Your task to perform on an android device: Search for vegetarian restaurants on Maps Image 0: 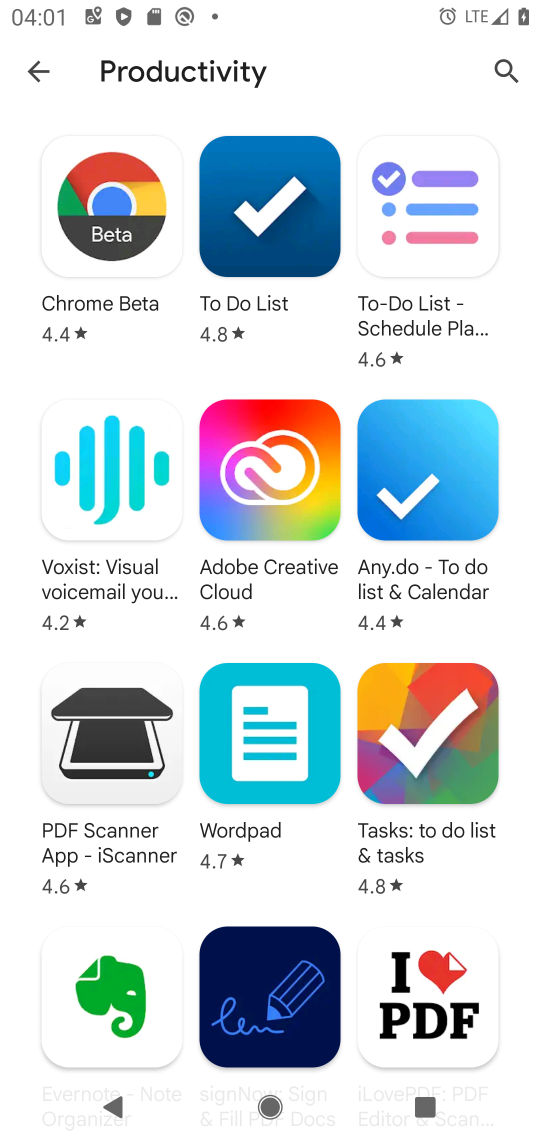
Step 0: press back button
Your task to perform on an android device: Search for vegetarian restaurants on Maps Image 1: 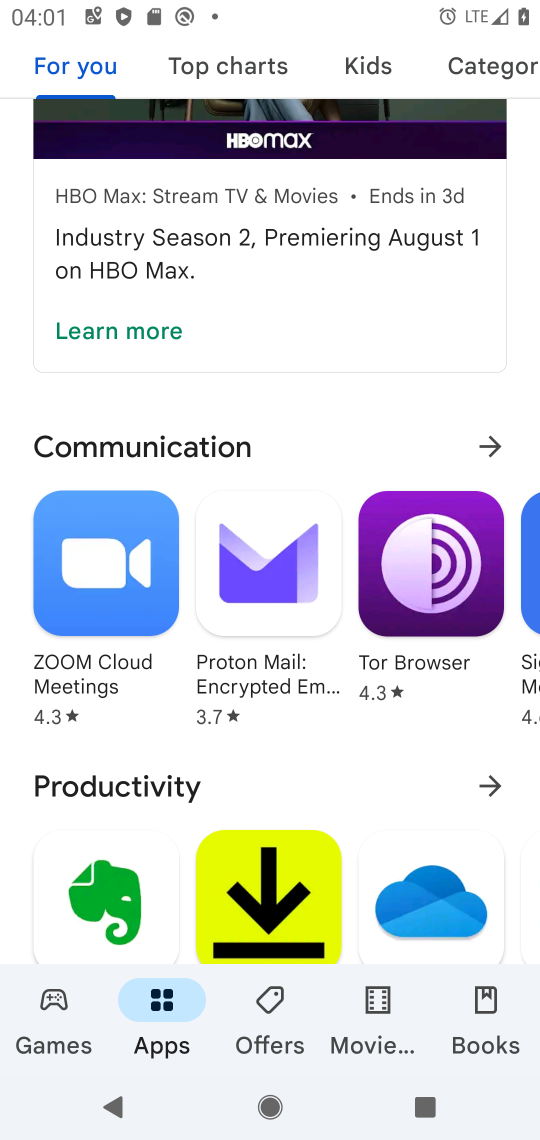
Step 1: press back button
Your task to perform on an android device: Search for vegetarian restaurants on Maps Image 2: 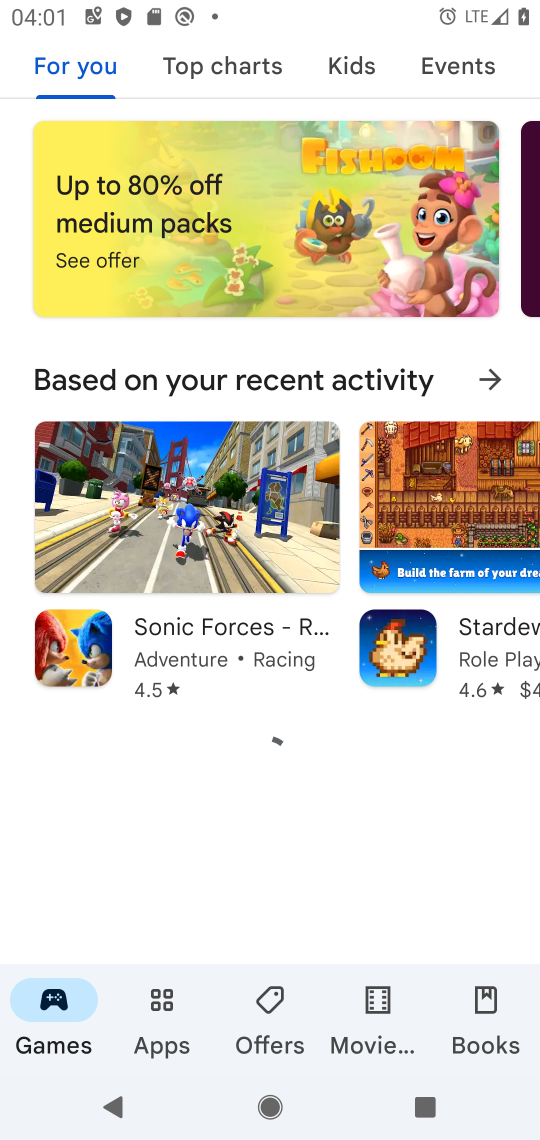
Step 2: press back button
Your task to perform on an android device: Search for vegetarian restaurants on Maps Image 3: 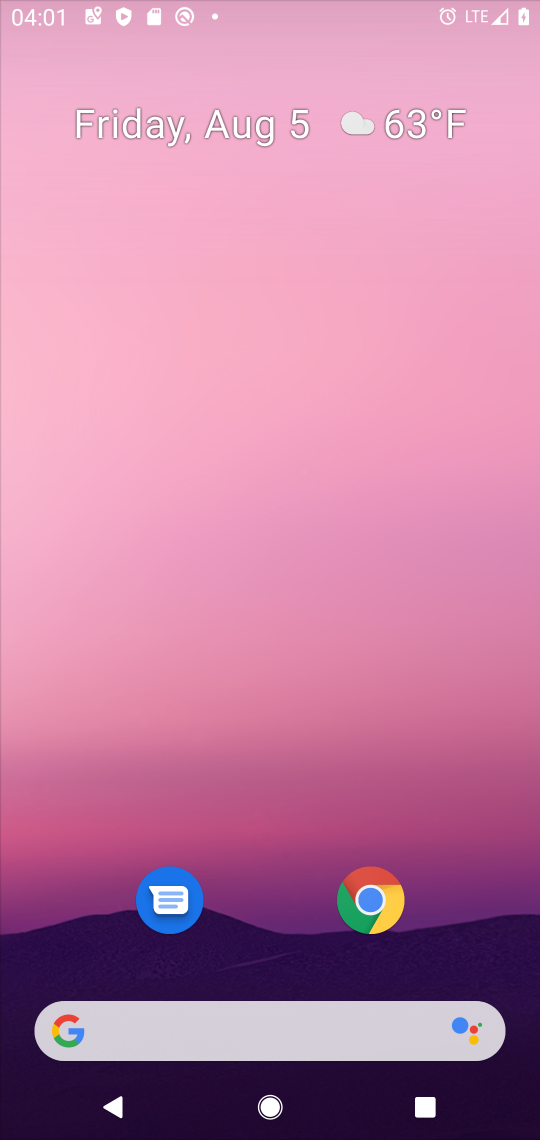
Step 3: press home button
Your task to perform on an android device: Search for vegetarian restaurants on Maps Image 4: 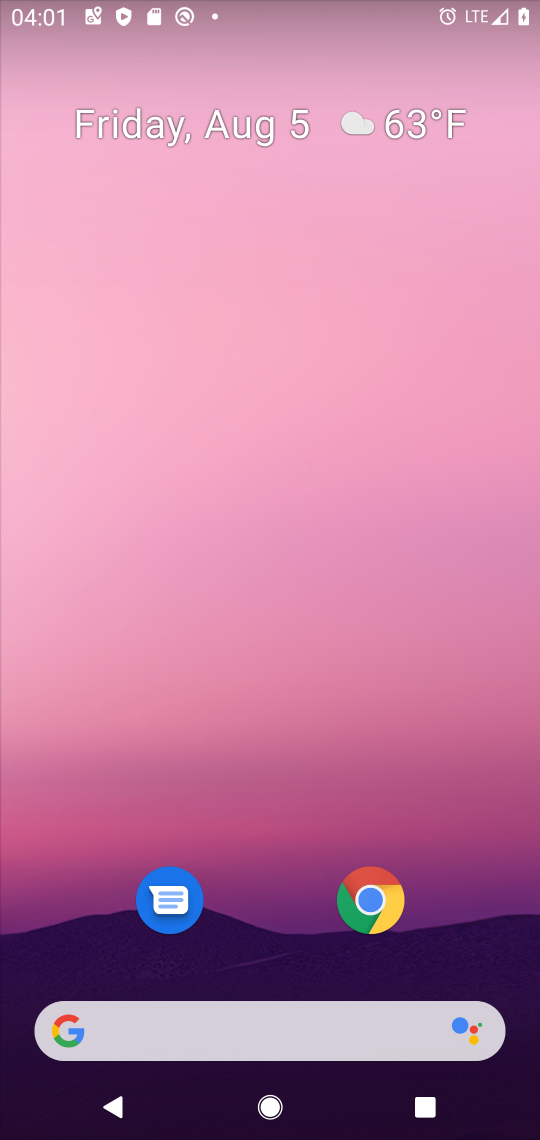
Step 4: drag from (241, 861) to (355, 10)
Your task to perform on an android device: Search for vegetarian restaurants on Maps Image 5: 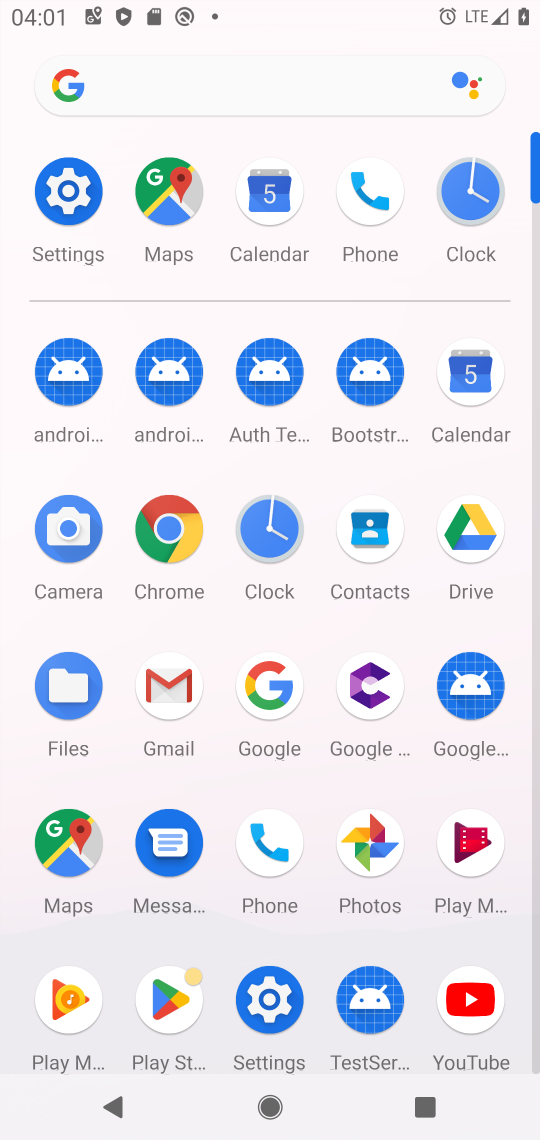
Step 5: click (177, 191)
Your task to perform on an android device: Search for vegetarian restaurants on Maps Image 6: 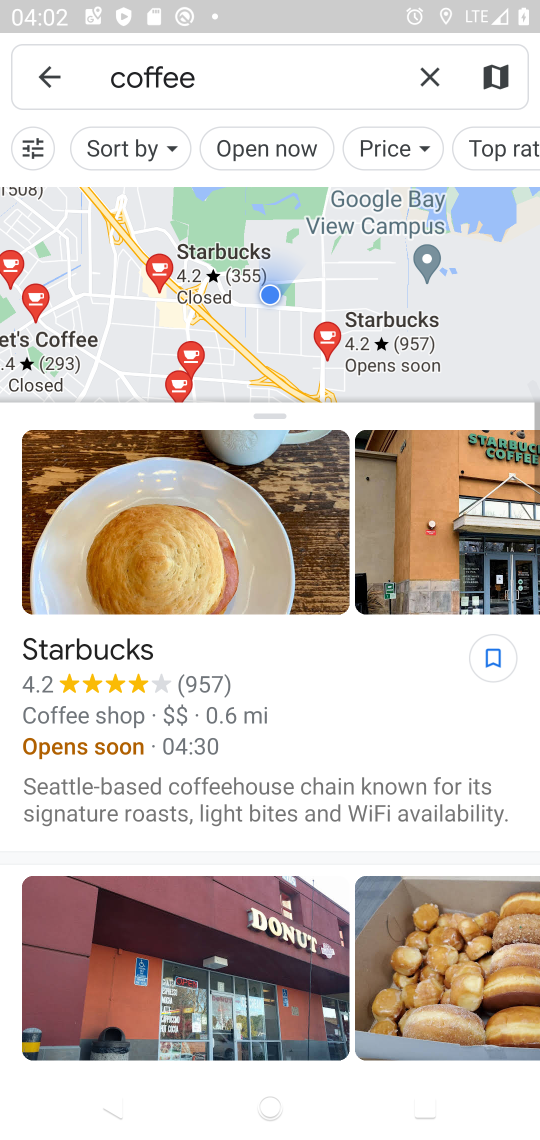
Step 6: click (420, 70)
Your task to perform on an android device: Search for vegetarian restaurants on Maps Image 7: 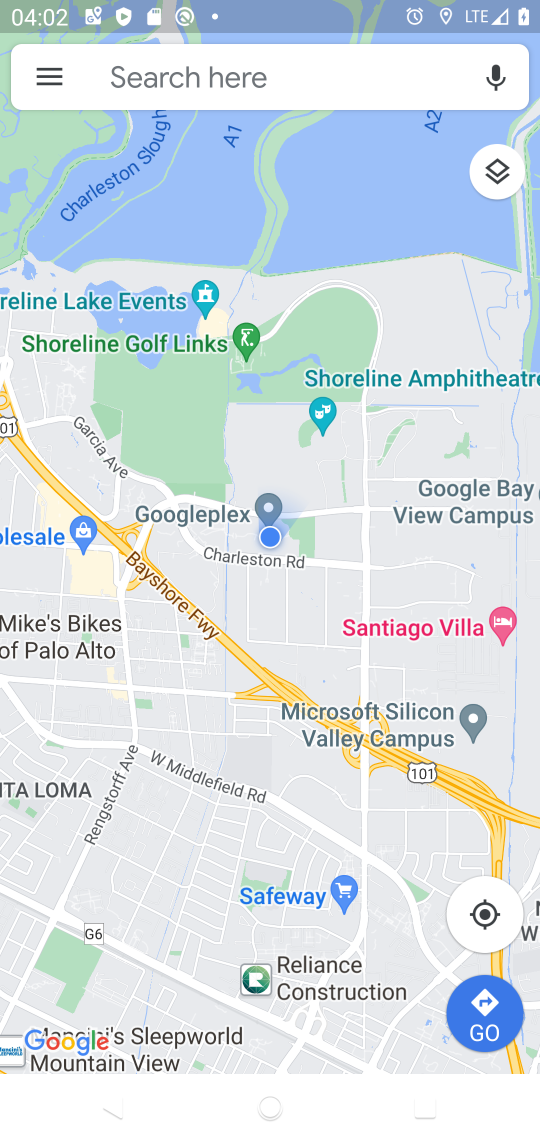
Step 7: click (264, 76)
Your task to perform on an android device: Search for vegetarian restaurants on Maps Image 8: 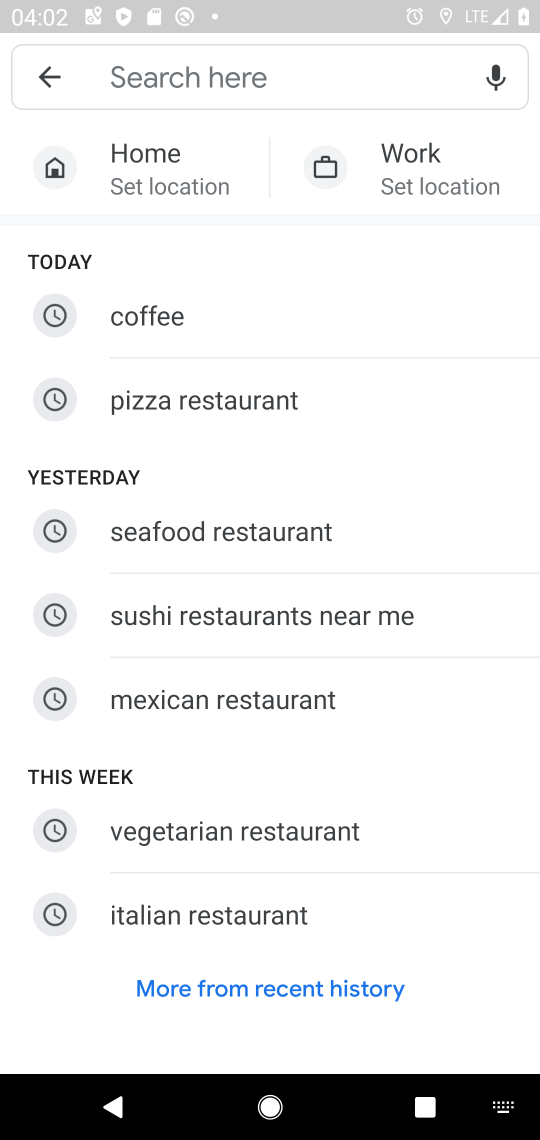
Step 8: type "veg"
Your task to perform on an android device: Search for vegetarian restaurants on Maps Image 9: 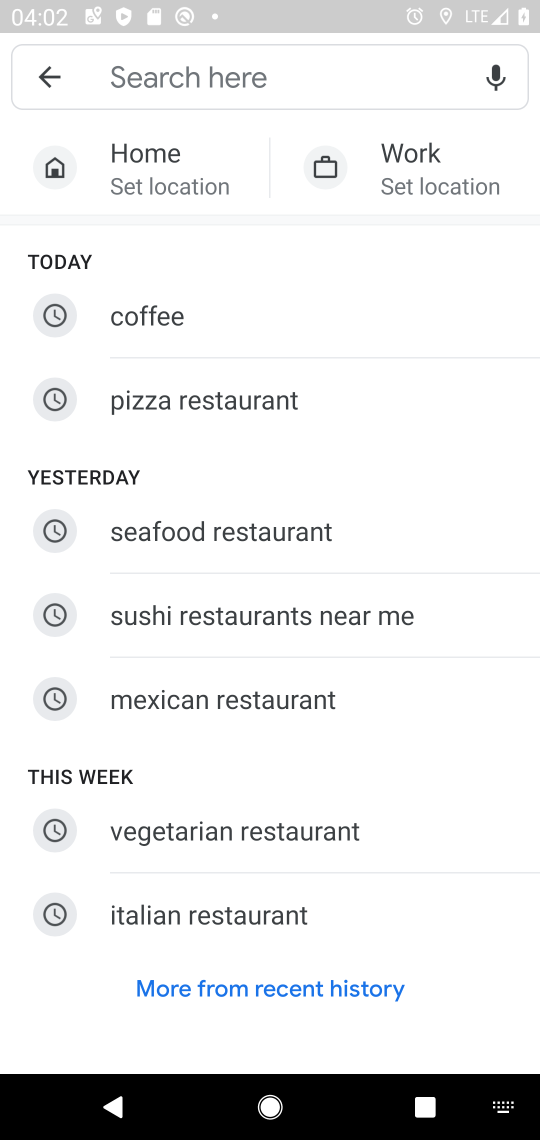
Step 9: click (147, 804)
Your task to perform on an android device: Search for vegetarian restaurants on Maps Image 10: 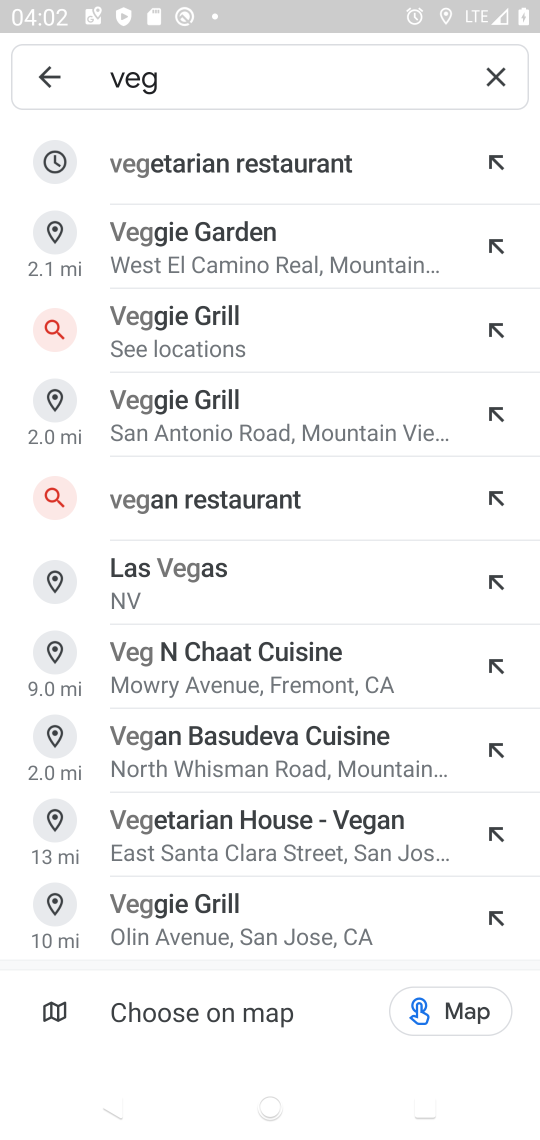
Step 10: click (170, 174)
Your task to perform on an android device: Search for vegetarian restaurants on Maps Image 11: 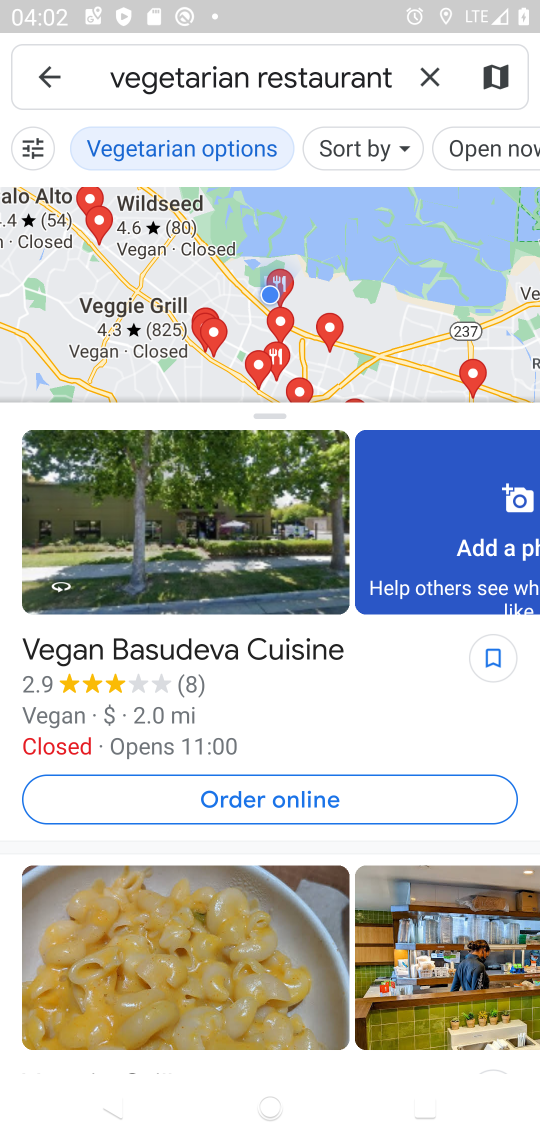
Step 11: task complete